Your task to perform on an android device: Open Reddit.com Image 0: 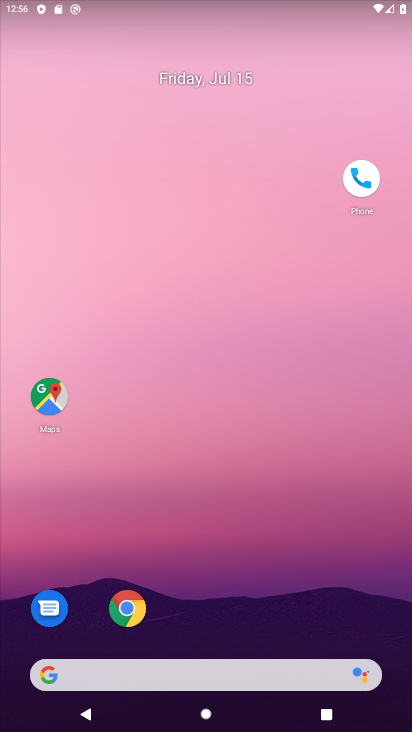
Step 0: drag from (203, 614) to (241, 163)
Your task to perform on an android device: Open Reddit.com Image 1: 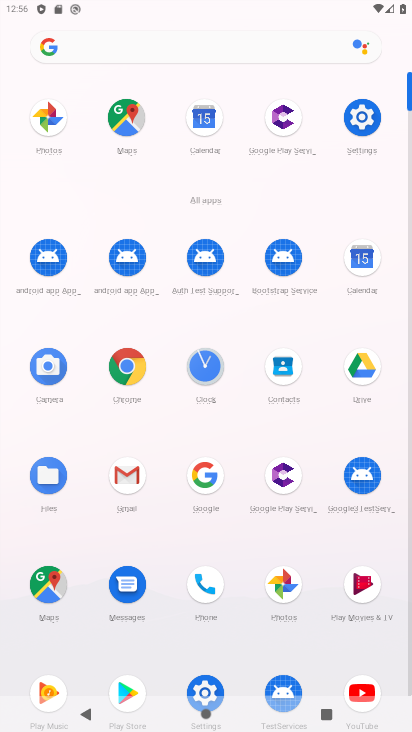
Step 1: click (125, 58)
Your task to perform on an android device: Open Reddit.com Image 2: 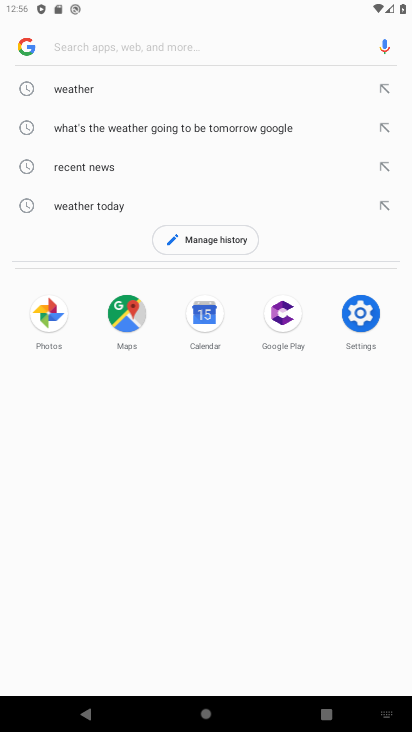
Step 2: type "Reddit.com"
Your task to perform on an android device: Open Reddit.com Image 3: 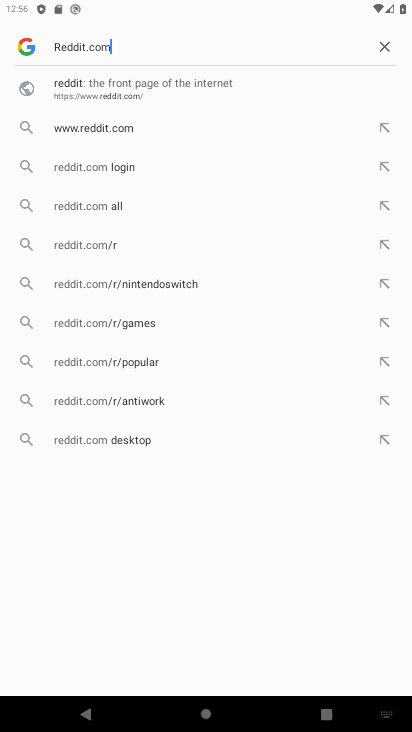
Step 3: click (81, 91)
Your task to perform on an android device: Open Reddit.com Image 4: 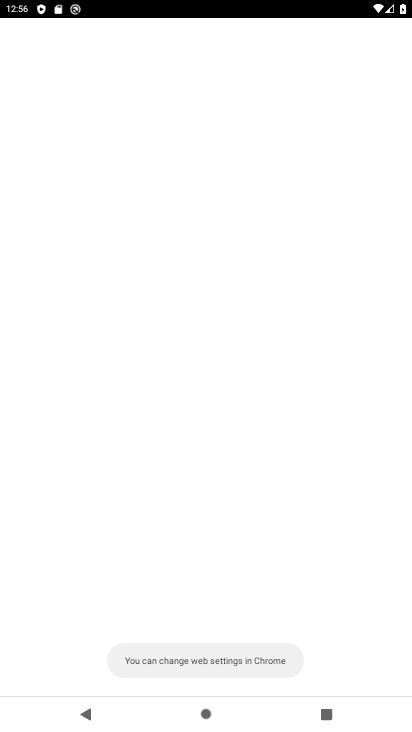
Step 4: task complete